Your task to perform on an android device: Show me recent news Image 0: 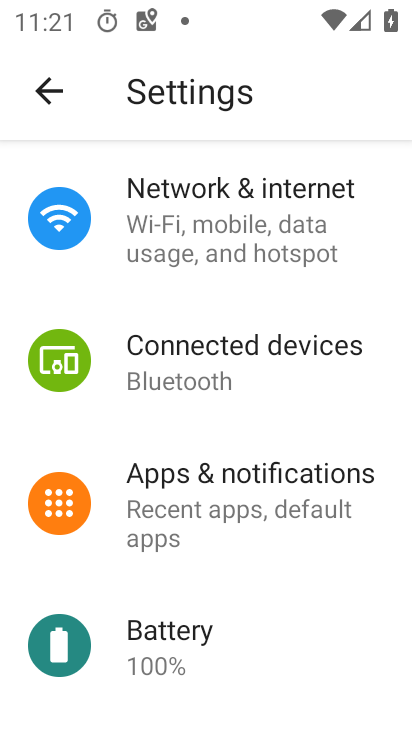
Step 0: press home button
Your task to perform on an android device: Show me recent news Image 1: 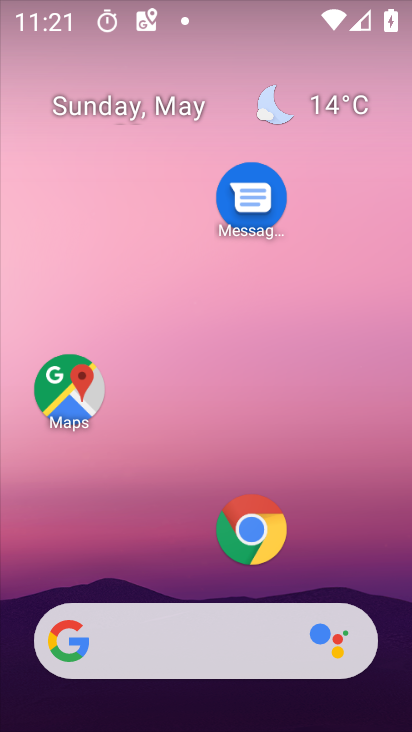
Step 1: click (244, 668)
Your task to perform on an android device: Show me recent news Image 2: 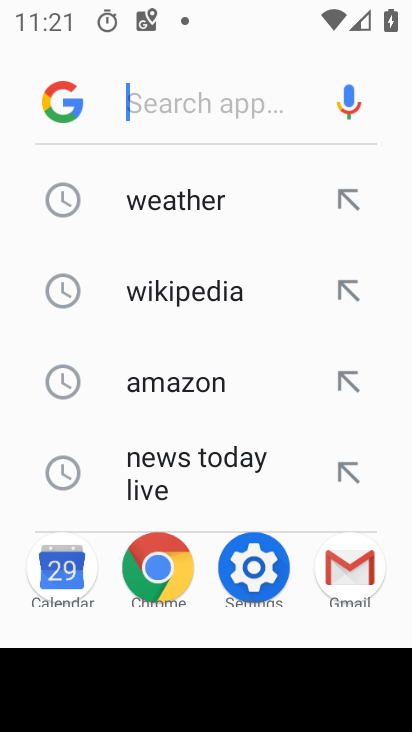
Step 2: type "recent news"
Your task to perform on an android device: Show me recent news Image 3: 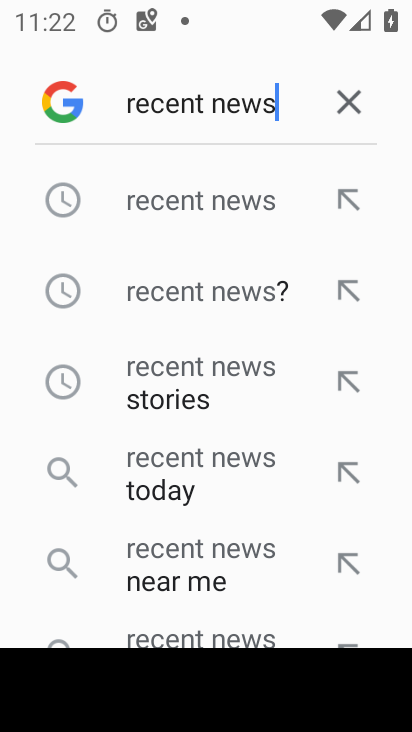
Step 3: click (214, 221)
Your task to perform on an android device: Show me recent news Image 4: 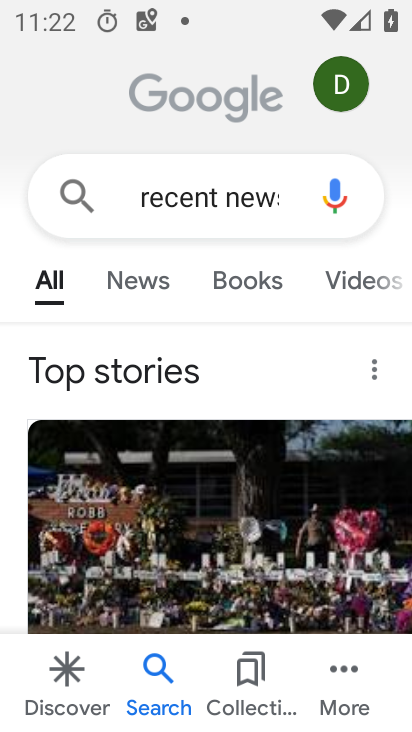
Step 4: task complete